Your task to perform on an android device: Open wifi settings Image 0: 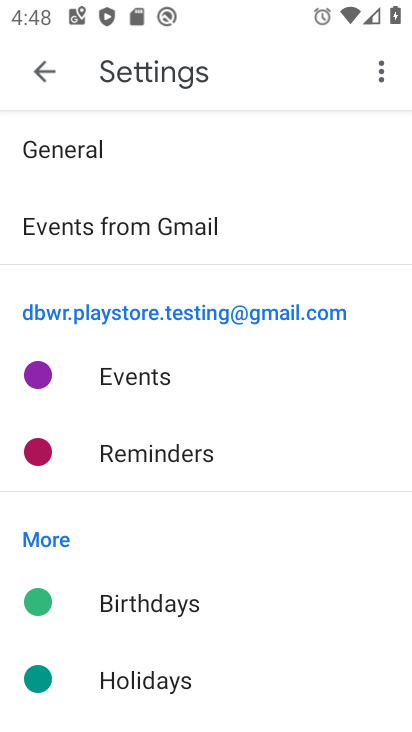
Step 0: press home button
Your task to perform on an android device: Open wifi settings Image 1: 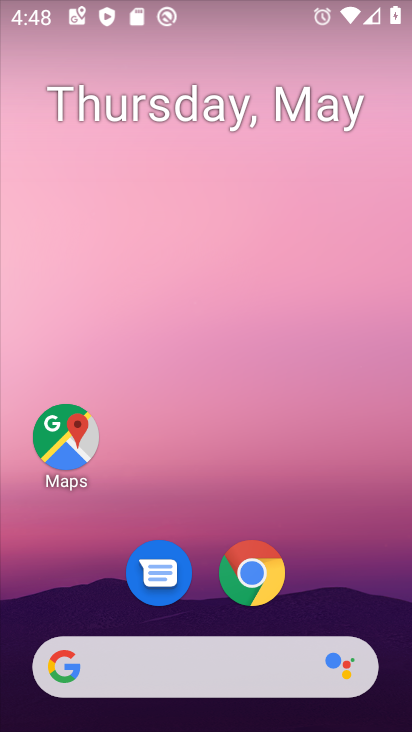
Step 1: drag from (321, 555) to (263, 2)
Your task to perform on an android device: Open wifi settings Image 2: 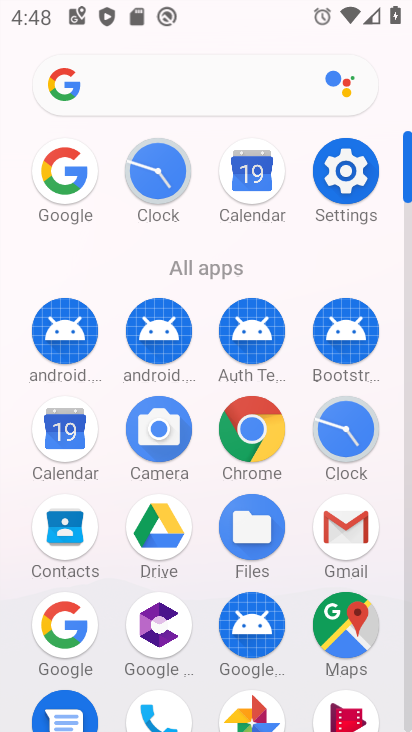
Step 2: click (348, 221)
Your task to perform on an android device: Open wifi settings Image 3: 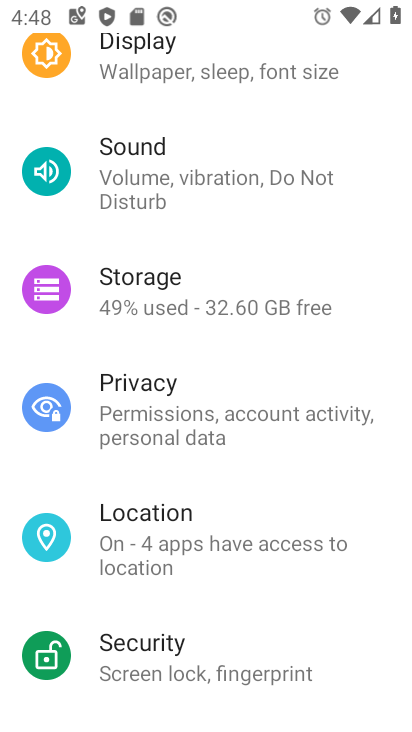
Step 3: drag from (194, 255) to (147, 577)
Your task to perform on an android device: Open wifi settings Image 4: 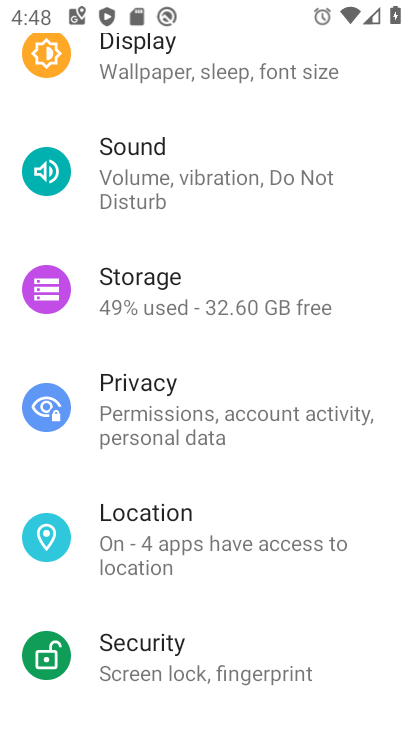
Step 4: drag from (228, 229) to (205, 572)
Your task to perform on an android device: Open wifi settings Image 5: 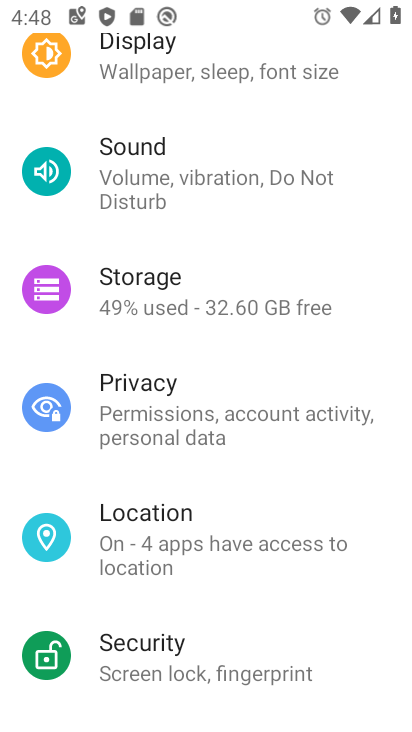
Step 5: drag from (203, 93) to (186, 577)
Your task to perform on an android device: Open wifi settings Image 6: 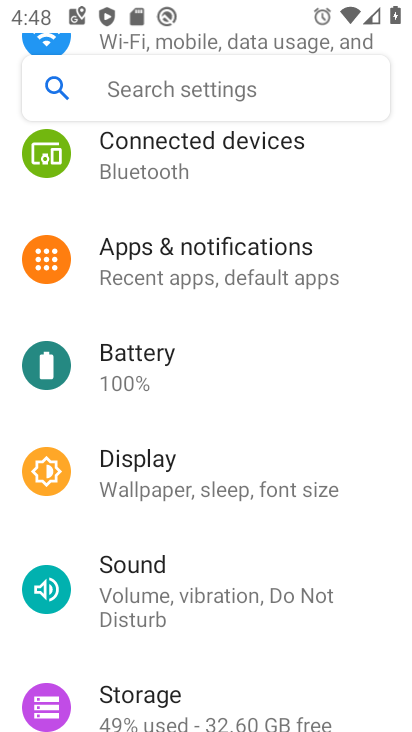
Step 6: drag from (179, 235) to (138, 601)
Your task to perform on an android device: Open wifi settings Image 7: 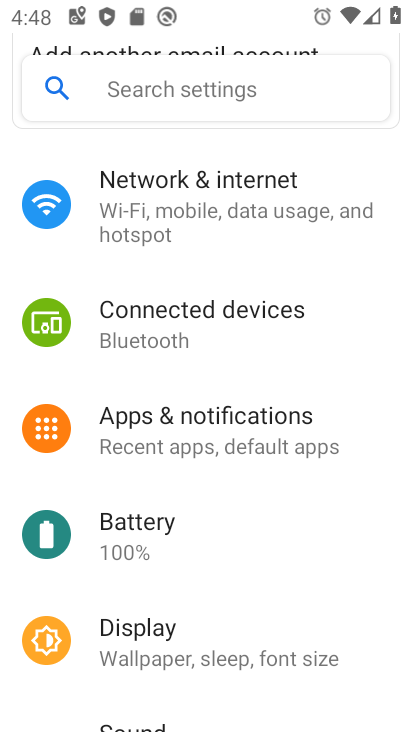
Step 7: click (206, 195)
Your task to perform on an android device: Open wifi settings Image 8: 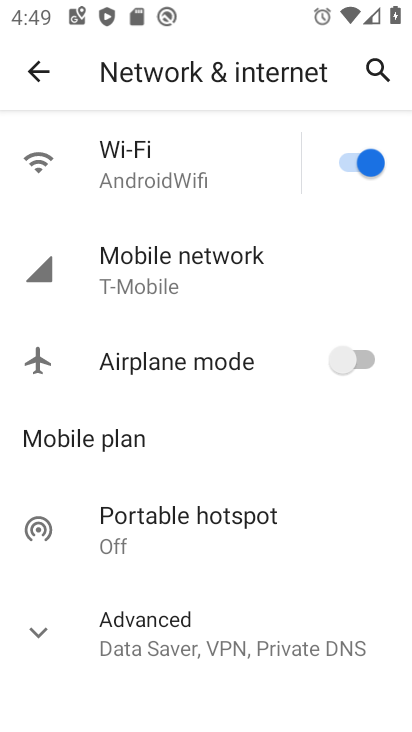
Step 8: click (156, 179)
Your task to perform on an android device: Open wifi settings Image 9: 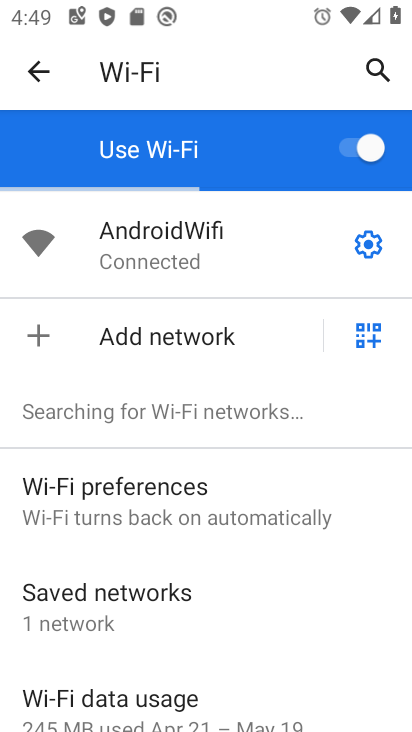
Step 9: task complete